Your task to perform on an android device: open chrome privacy settings Image 0: 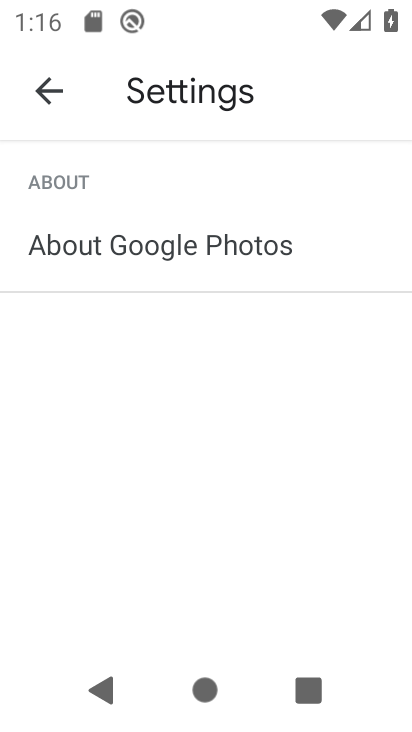
Step 0: press home button
Your task to perform on an android device: open chrome privacy settings Image 1: 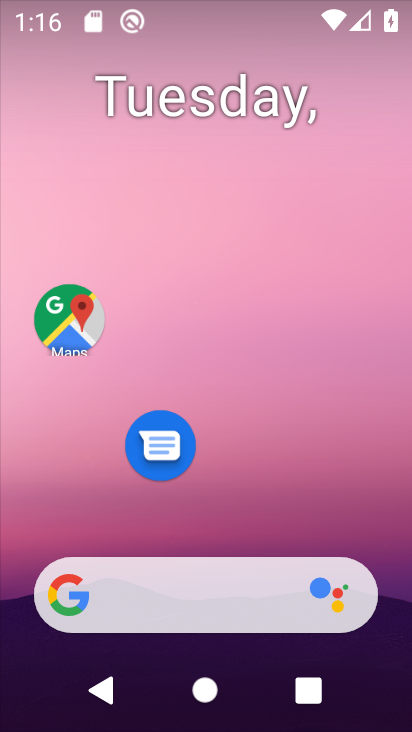
Step 1: drag from (248, 463) to (245, 65)
Your task to perform on an android device: open chrome privacy settings Image 2: 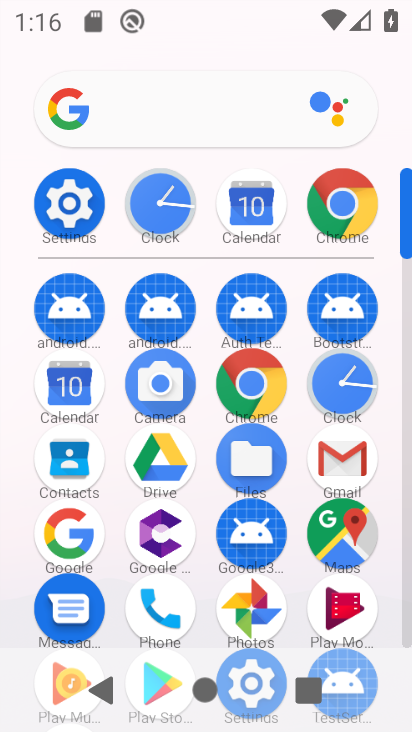
Step 2: click (350, 212)
Your task to perform on an android device: open chrome privacy settings Image 3: 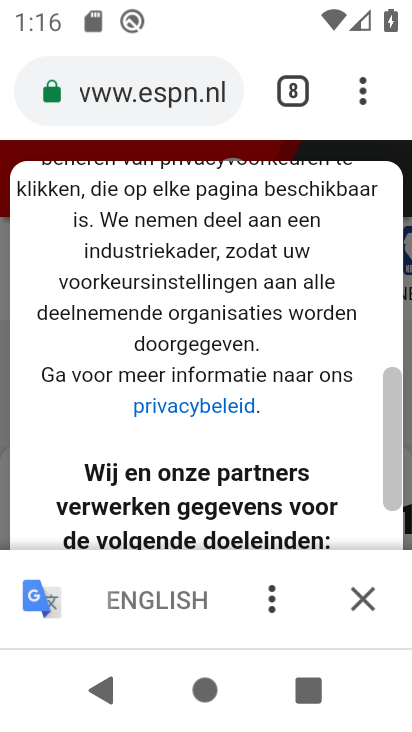
Step 3: click (359, 90)
Your task to perform on an android device: open chrome privacy settings Image 4: 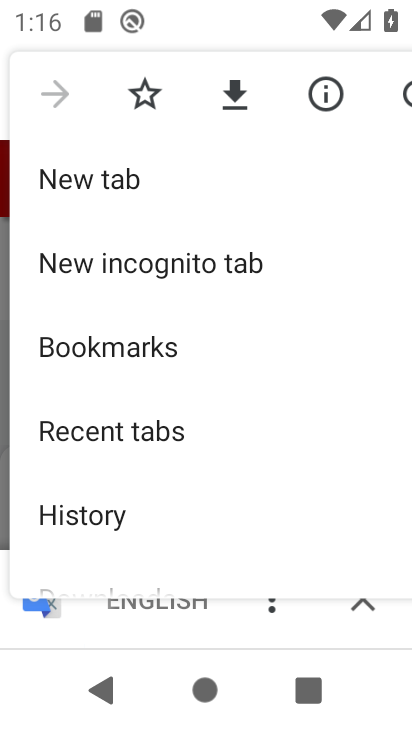
Step 4: drag from (216, 463) to (109, 116)
Your task to perform on an android device: open chrome privacy settings Image 5: 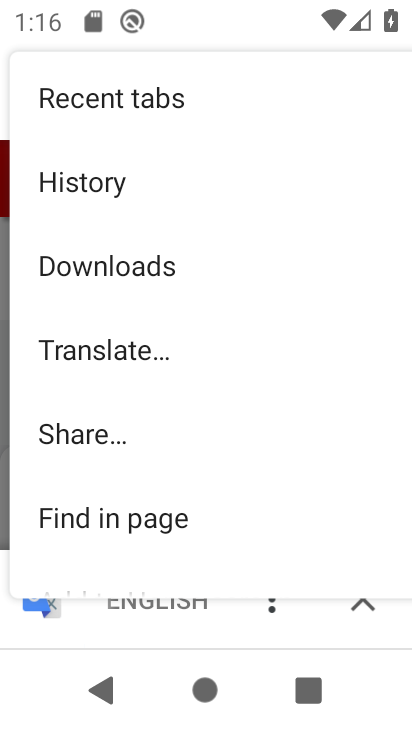
Step 5: drag from (174, 455) to (155, 160)
Your task to perform on an android device: open chrome privacy settings Image 6: 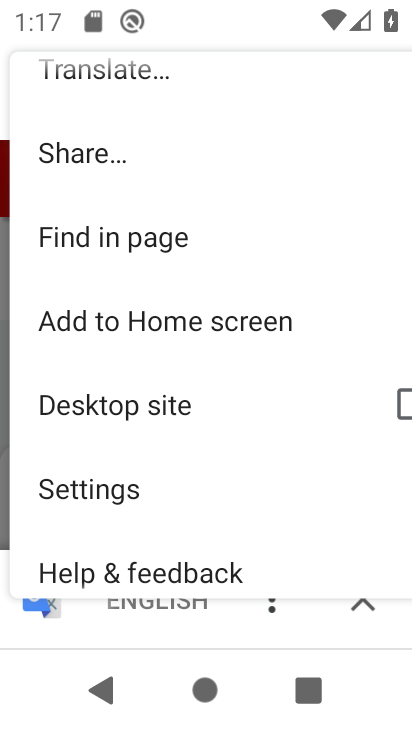
Step 6: click (96, 484)
Your task to perform on an android device: open chrome privacy settings Image 7: 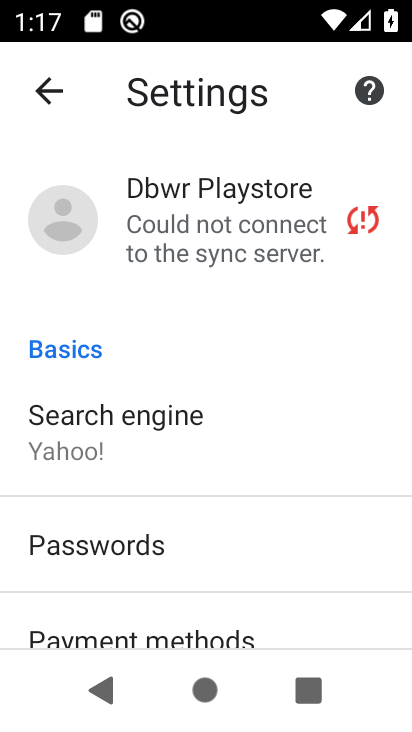
Step 7: drag from (207, 420) to (161, 83)
Your task to perform on an android device: open chrome privacy settings Image 8: 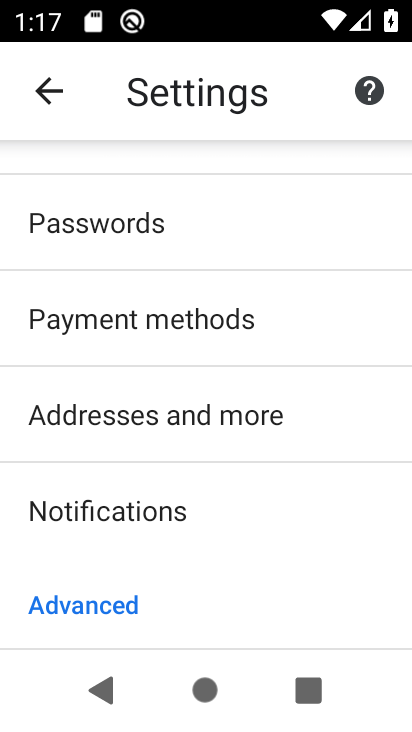
Step 8: drag from (167, 427) to (143, 189)
Your task to perform on an android device: open chrome privacy settings Image 9: 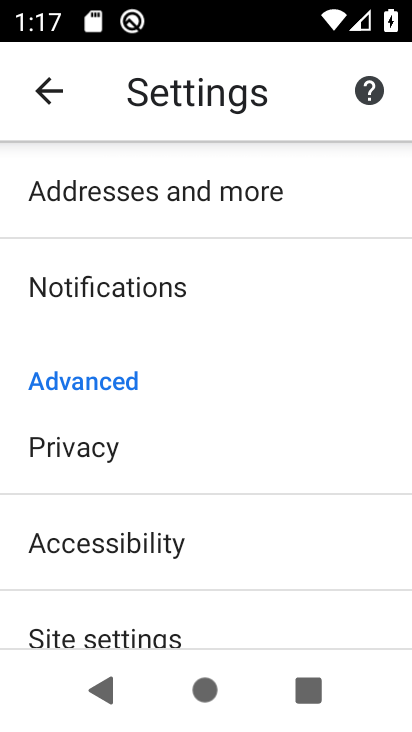
Step 9: click (81, 485)
Your task to perform on an android device: open chrome privacy settings Image 10: 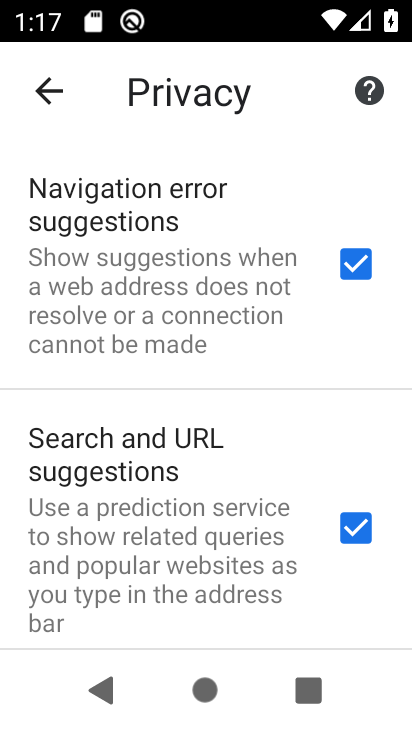
Step 10: task complete